Your task to perform on an android device: Open Google Chrome Image 0: 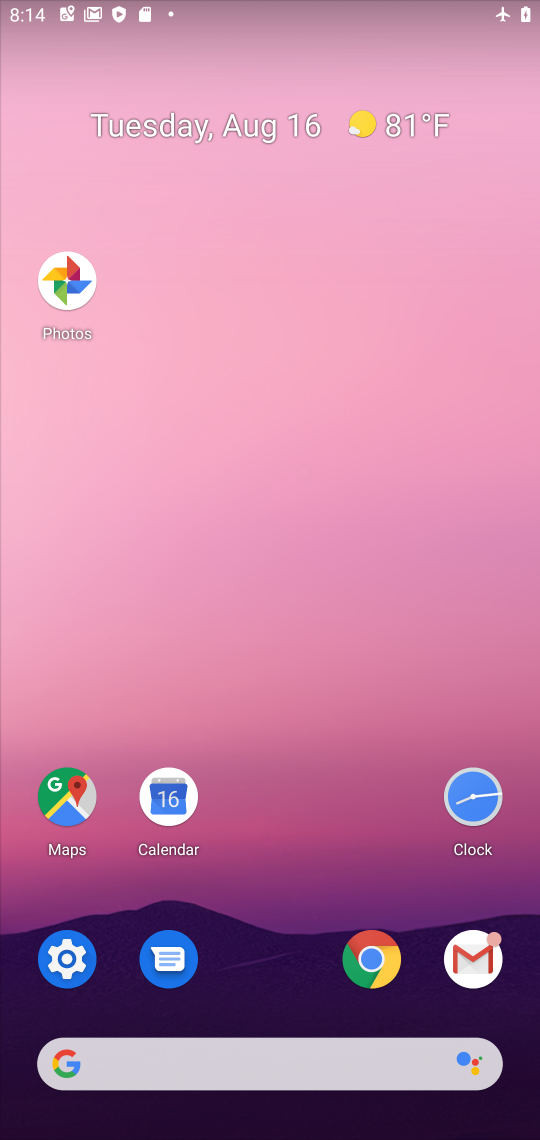
Step 0: press home button
Your task to perform on an android device: Open Google Chrome Image 1: 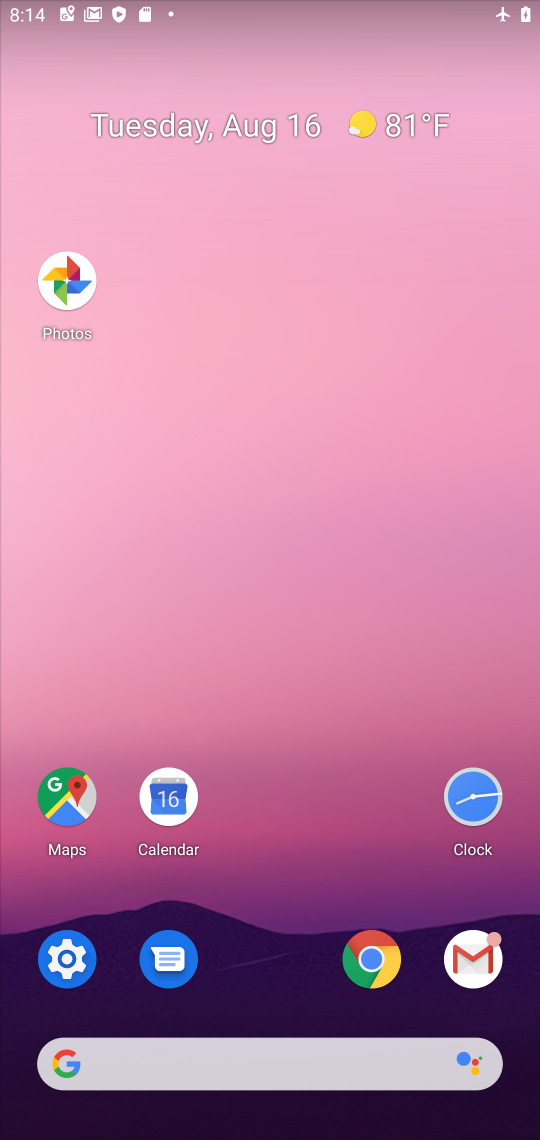
Step 1: click (378, 959)
Your task to perform on an android device: Open Google Chrome Image 2: 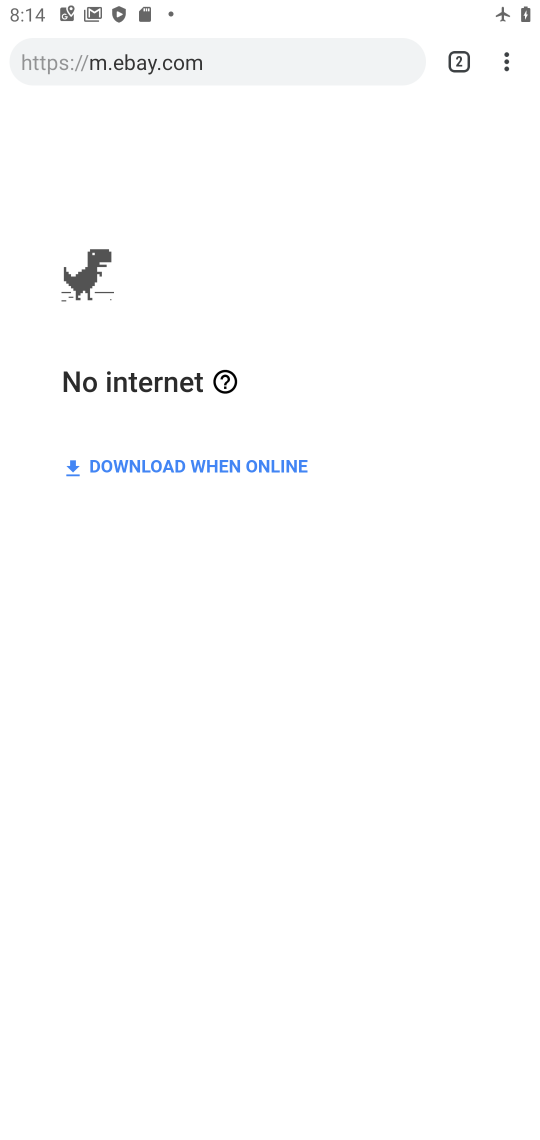
Step 2: click (509, 52)
Your task to perform on an android device: Open Google Chrome Image 3: 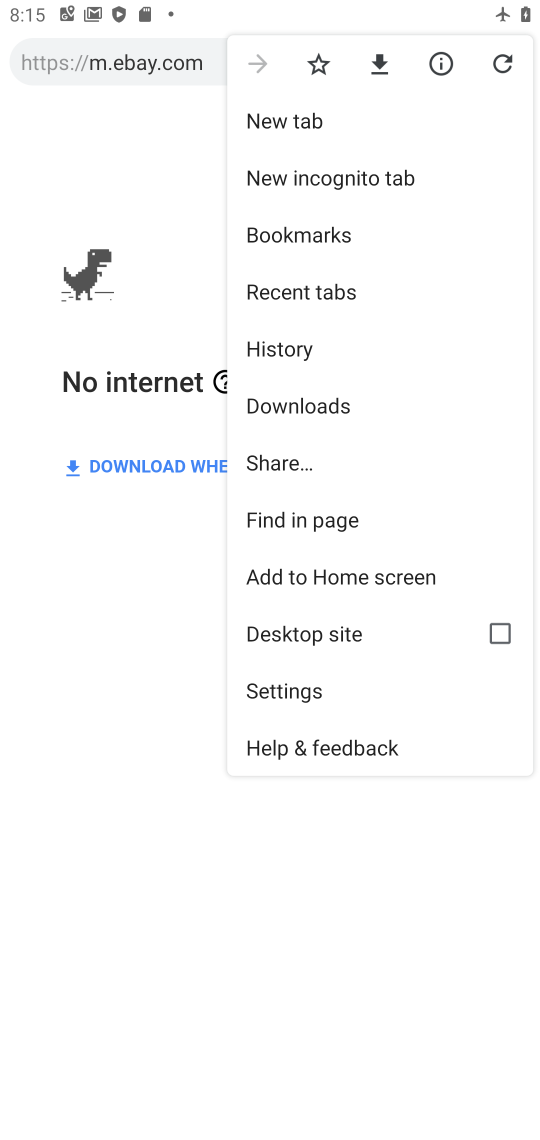
Step 3: click (286, 119)
Your task to perform on an android device: Open Google Chrome Image 4: 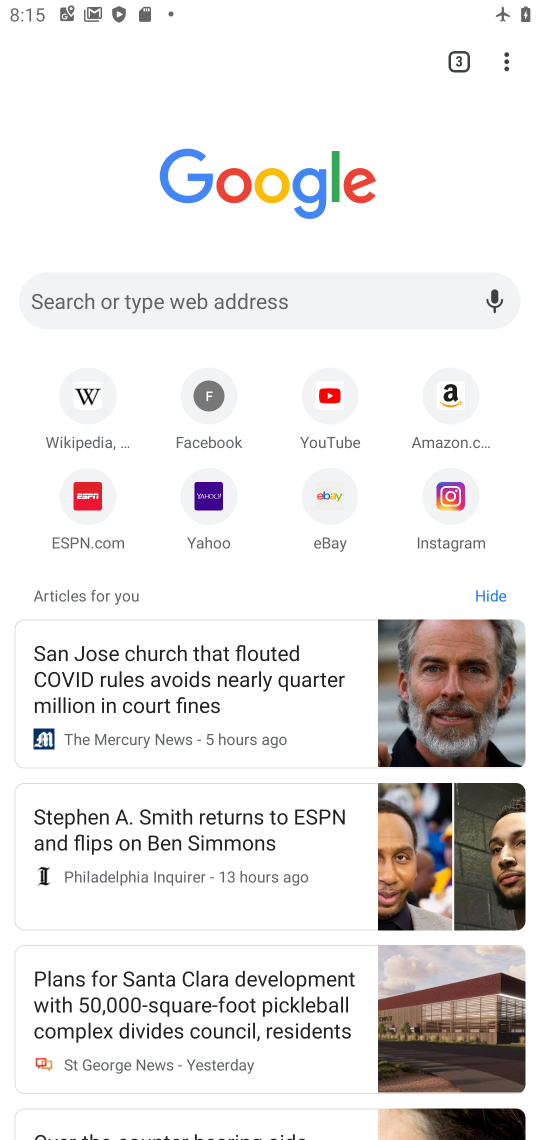
Step 4: task complete